Your task to perform on an android device: Open internet settings Image 0: 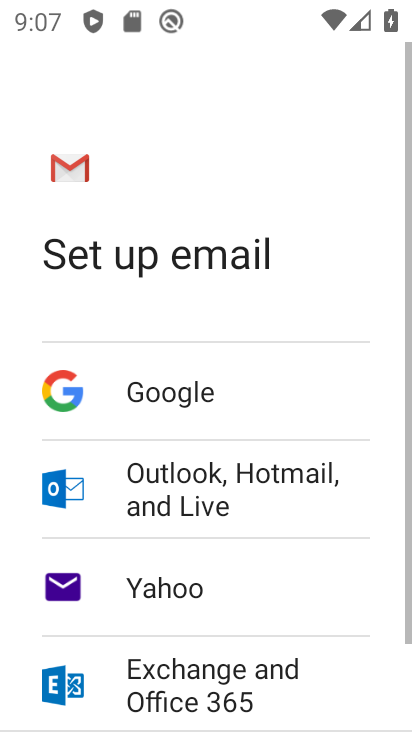
Step 0: press back button
Your task to perform on an android device: Open internet settings Image 1: 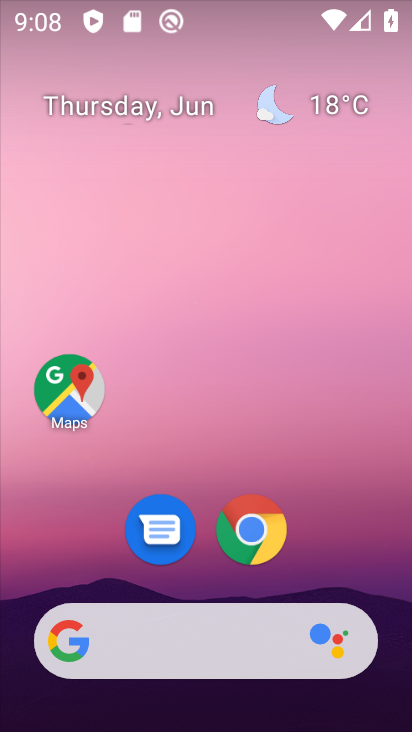
Step 1: drag from (262, 698) to (238, 24)
Your task to perform on an android device: Open internet settings Image 2: 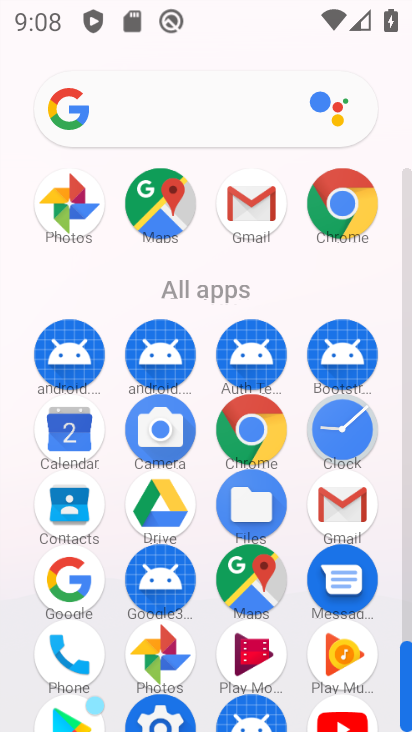
Step 2: drag from (183, 503) to (164, 237)
Your task to perform on an android device: Open internet settings Image 3: 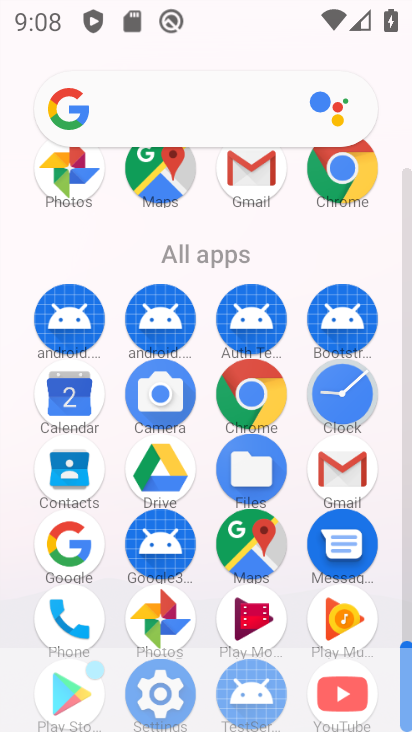
Step 3: drag from (199, 424) to (199, 106)
Your task to perform on an android device: Open internet settings Image 4: 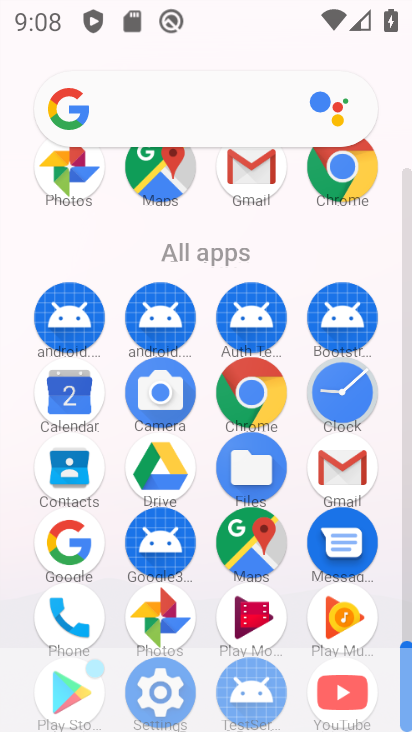
Step 4: drag from (186, 497) to (201, 194)
Your task to perform on an android device: Open internet settings Image 5: 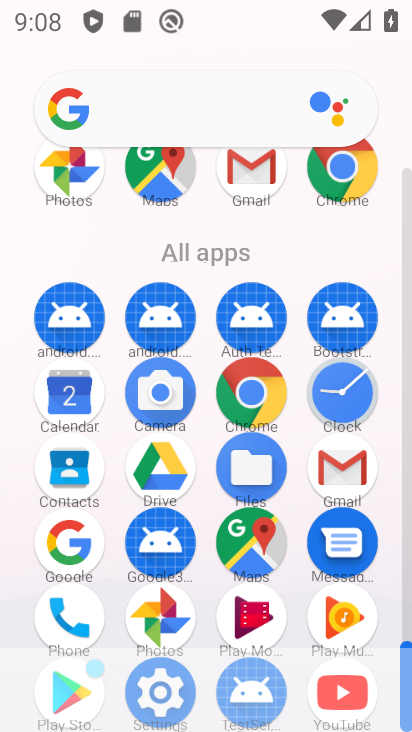
Step 5: drag from (232, 590) to (168, 190)
Your task to perform on an android device: Open internet settings Image 6: 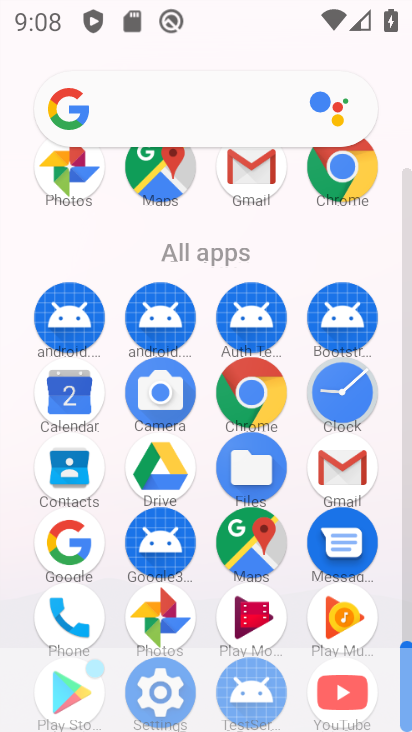
Step 6: drag from (169, 342) to (176, 284)
Your task to perform on an android device: Open internet settings Image 7: 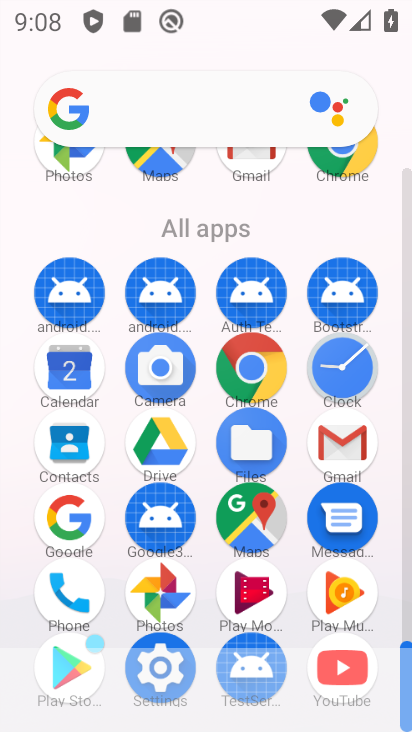
Step 7: drag from (211, 528) to (178, 240)
Your task to perform on an android device: Open internet settings Image 8: 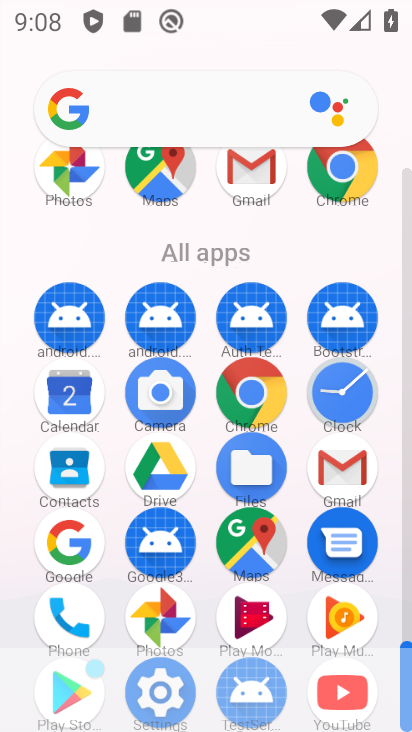
Step 8: drag from (216, 541) to (167, 201)
Your task to perform on an android device: Open internet settings Image 9: 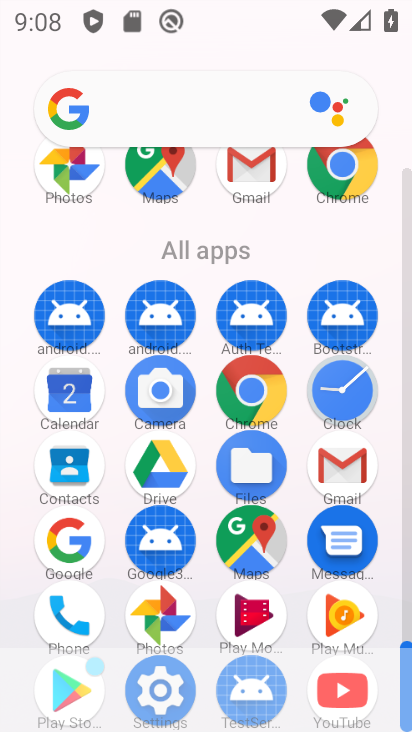
Step 9: drag from (213, 522) to (179, 178)
Your task to perform on an android device: Open internet settings Image 10: 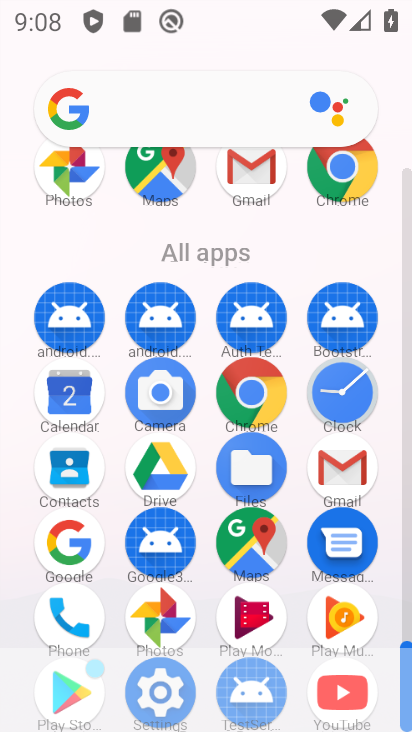
Step 10: drag from (206, 233) to (206, 422)
Your task to perform on an android device: Open internet settings Image 11: 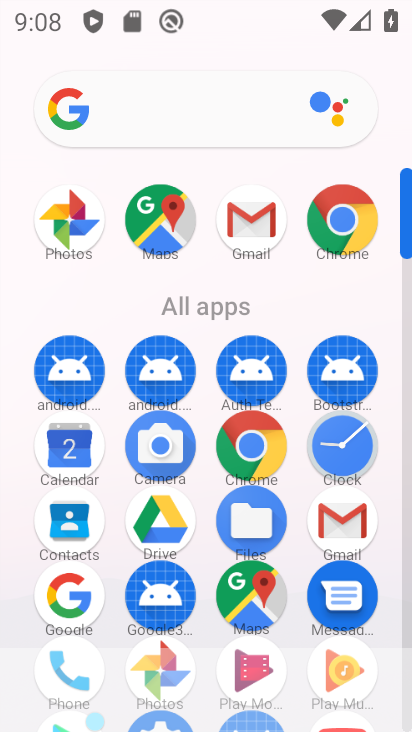
Step 11: drag from (170, 227) to (182, 487)
Your task to perform on an android device: Open internet settings Image 12: 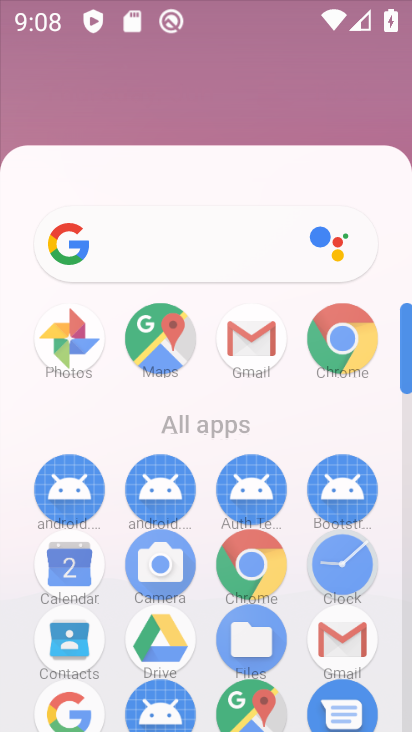
Step 12: drag from (201, 493) to (209, 650)
Your task to perform on an android device: Open internet settings Image 13: 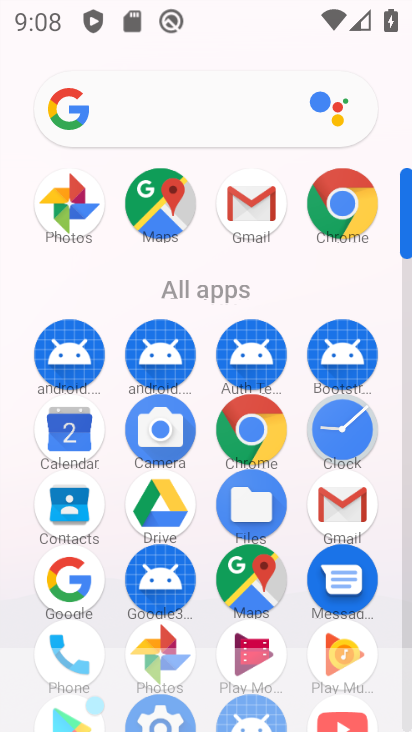
Step 13: click (393, 568)
Your task to perform on an android device: Open internet settings Image 14: 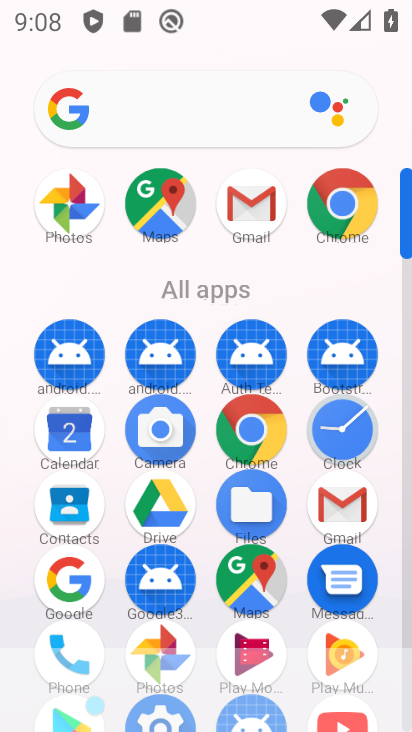
Step 14: click (394, 569)
Your task to perform on an android device: Open internet settings Image 15: 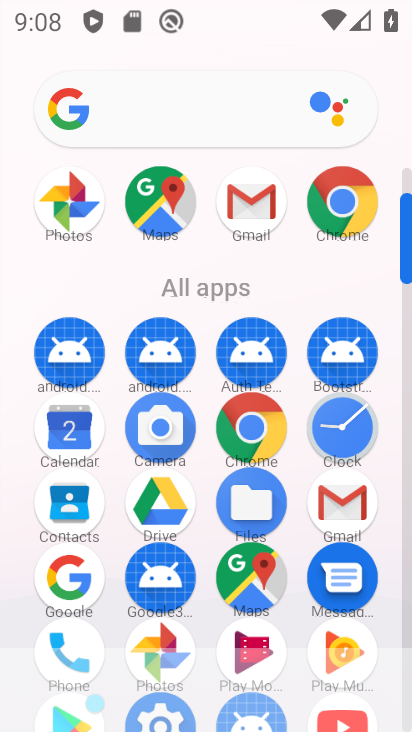
Step 15: click (387, 552)
Your task to perform on an android device: Open internet settings Image 16: 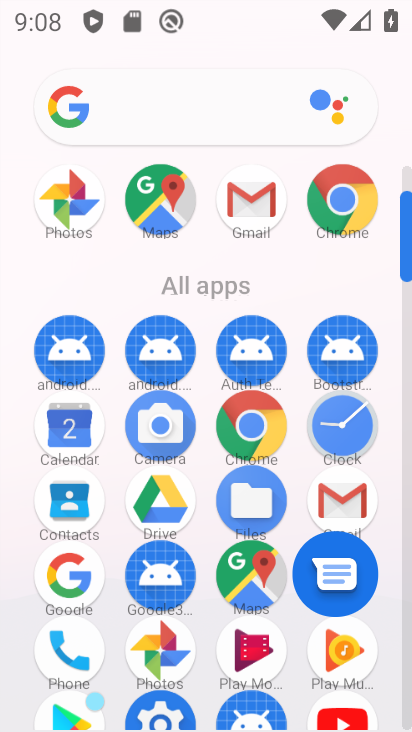
Step 16: drag from (257, 578) to (217, 236)
Your task to perform on an android device: Open internet settings Image 17: 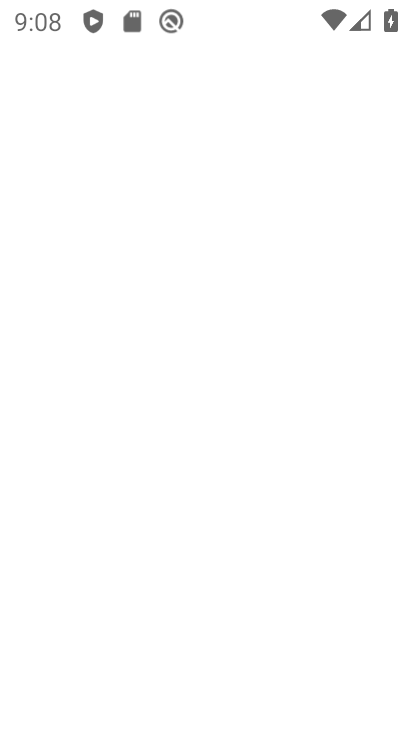
Step 17: drag from (330, 496) to (302, 305)
Your task to perform on an android device: Open internet settings Image 18: 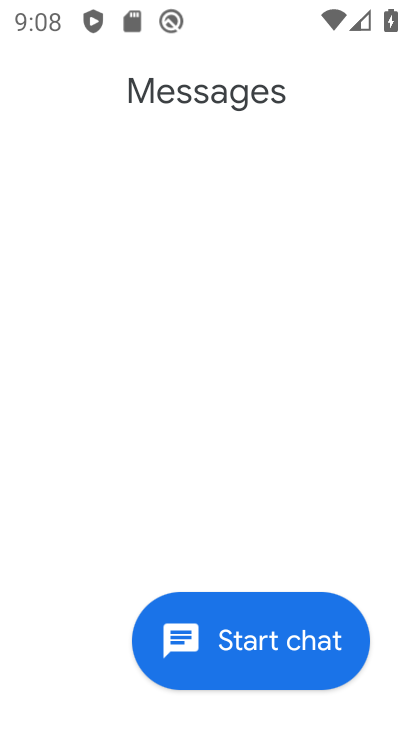
Step 18: press back button
Your task to perform on an android device: Open internet settings Image 19: 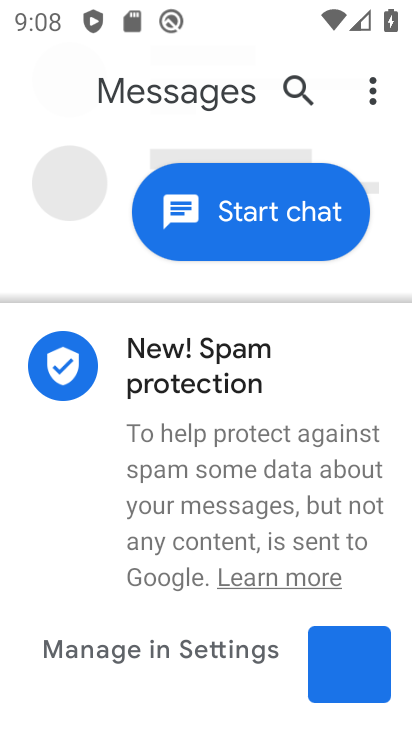
Step 19: press back button
Your task to perform on an android device: Open internet settings Image 20: 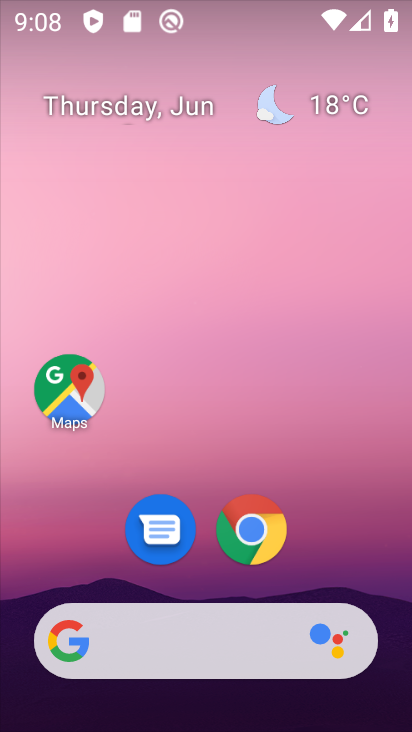
Step 20: press home button
Your task to perform on an android device: Open internet settings Image 21: 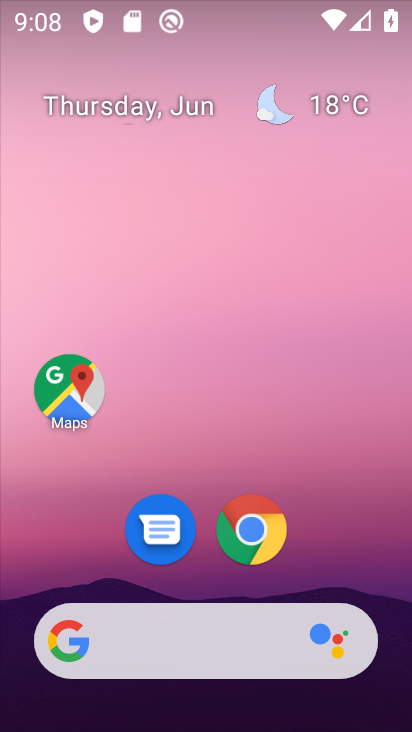
Step 21: press home button
Your task to perform on an android device: Open internet settings Image 22: 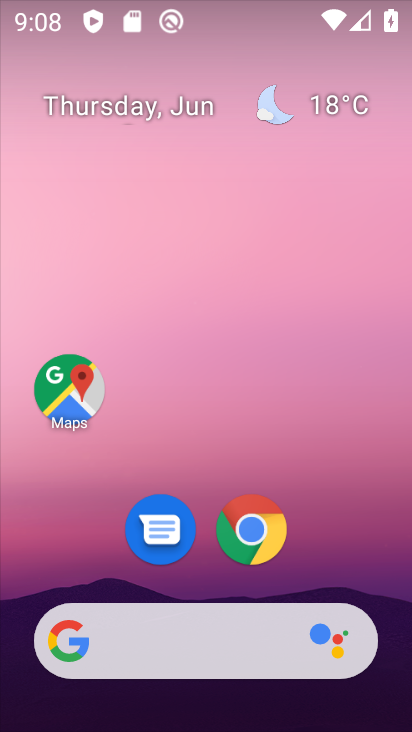
Step 22: click (400, 470)
Your task to perform on an android device: Open internet settings Image 23: 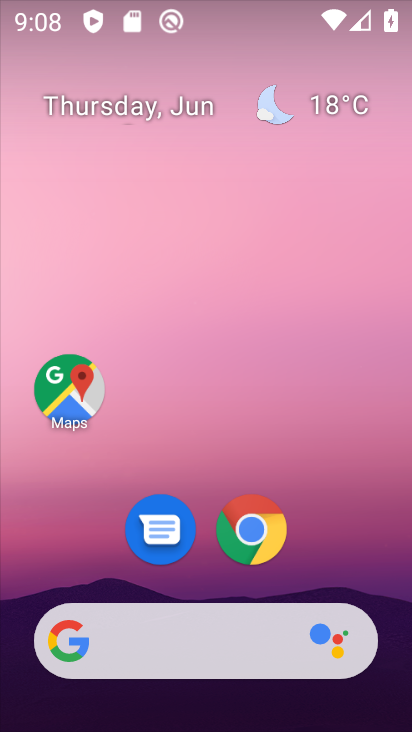
Step 23: drag from (167, 570) to (127, 14)
Your task to perform on an android device: Open internet settings Image 24: 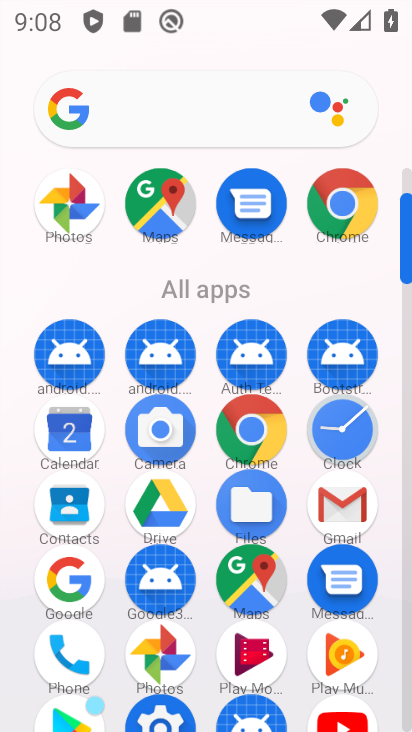
Step 24: drag from (218, 536) to (176, 189)
Your task to perform on an android device: Open internet settings Image 25: 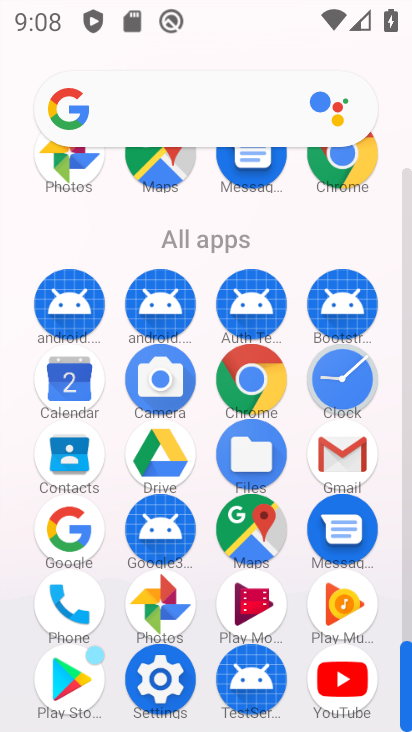
Step 25: drag from (180, 449) to (183, 116)
Your task to perform on an android device: Open internet settings Image 26: 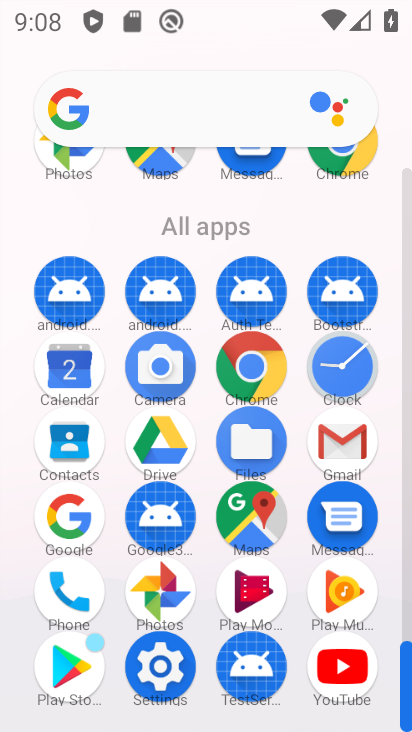
Step 26: click (214, 139)
Your task to perform on an android device: Open internet settings Image 27: 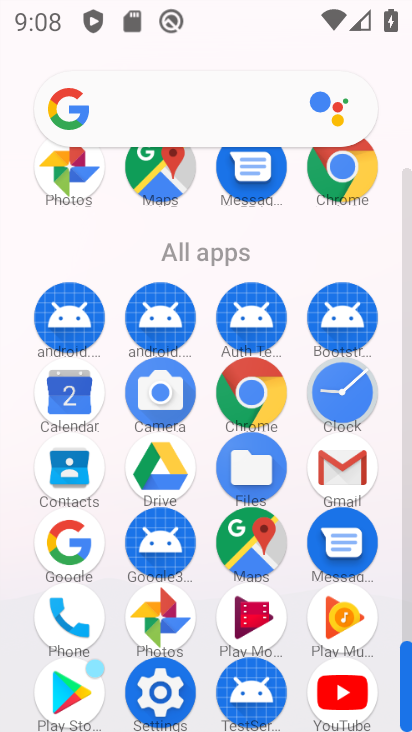
Step 27: click (166, 679)
Your task to perform on an android device: Open internet settings Image 28: 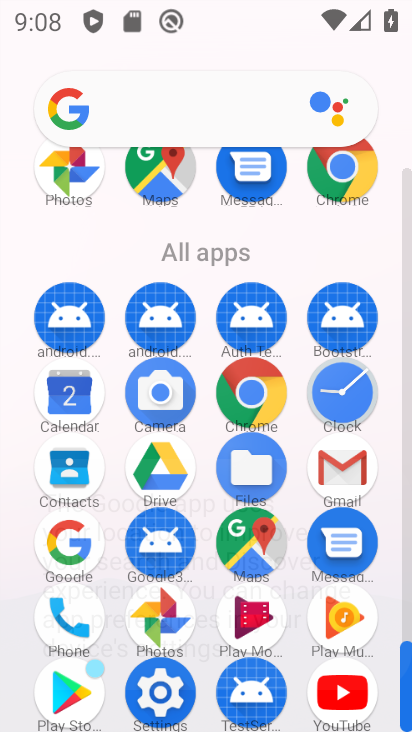
Step 28: click (166, 679)
Your task to perform on an android device: Open internet settings Image 29: 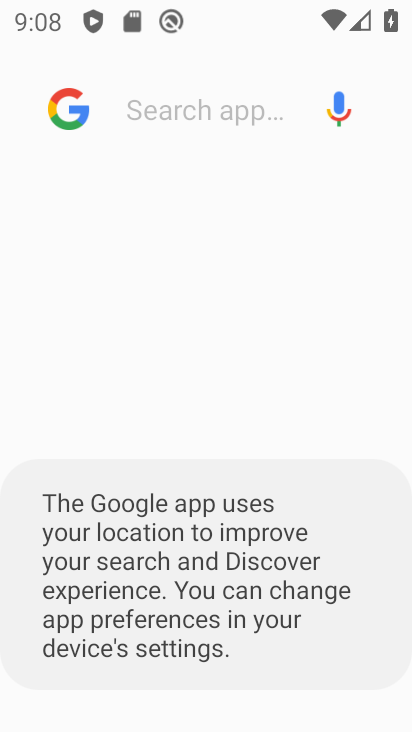
Step 29: click (166, 679)
Your task to perform on an android device: Open internet settings Image 30: 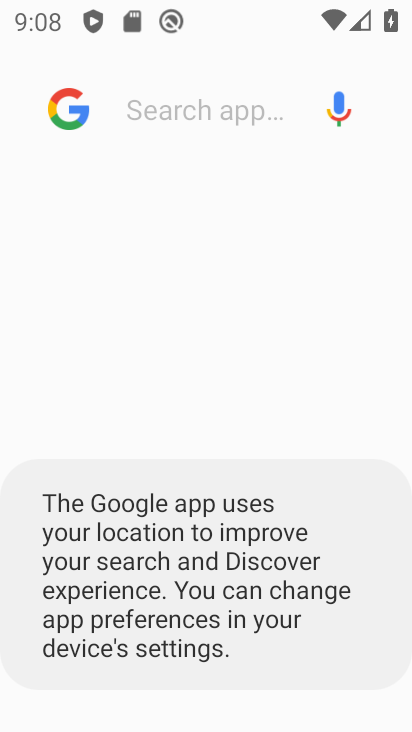
Step 30: click (164, 679)
Your task to perform on an android device: Open internet settings Image 31: 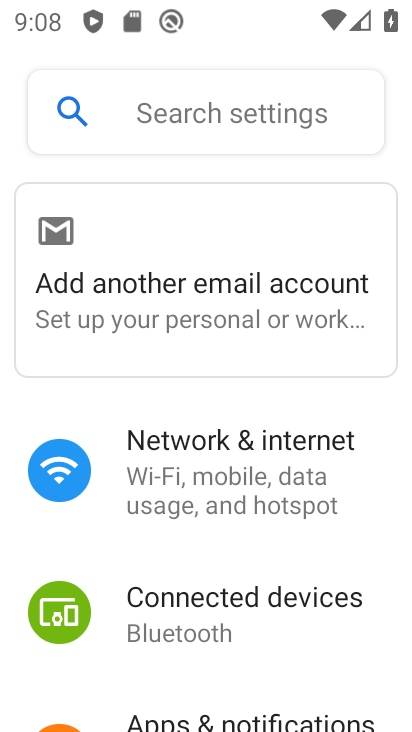
Step 31: click (209, 499)
Your task to perform on an android device: Open internet settings Image 32: 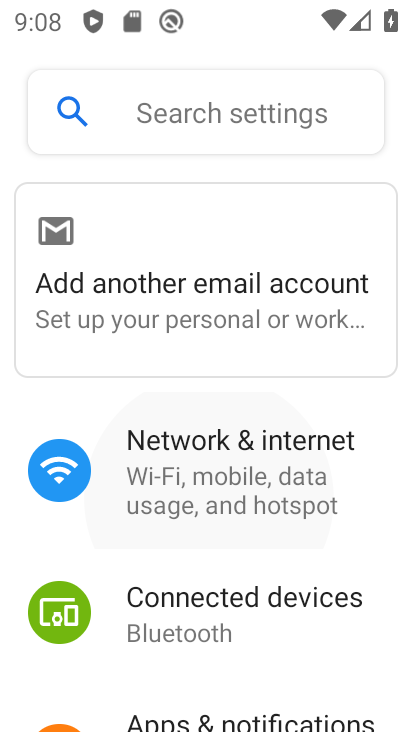
Step 32: click (210, 499)
Your task to perform on an android device: Open internet settings Image 33: 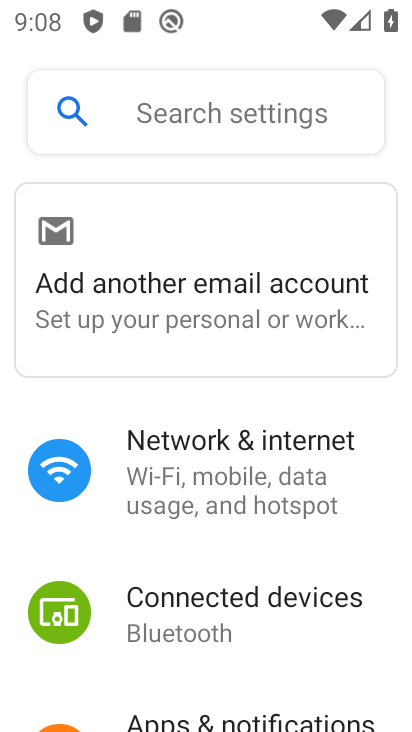
Step 33: click (213, 499)
Your task to perform on an android device: Open internet settings Image 34: 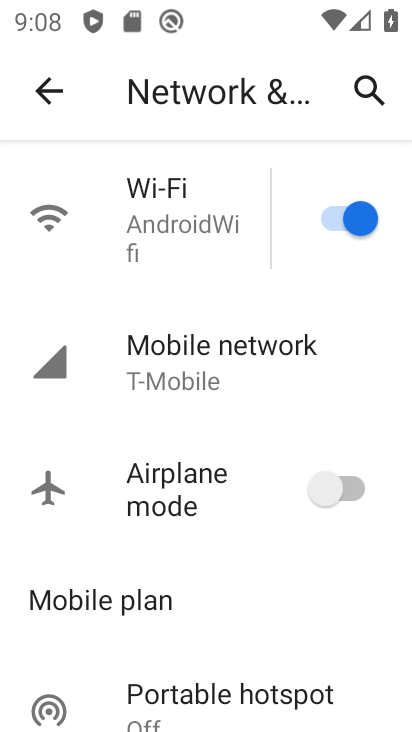
Step 34: task complete